Your task to perform on an android device: See recent photos Image 0: 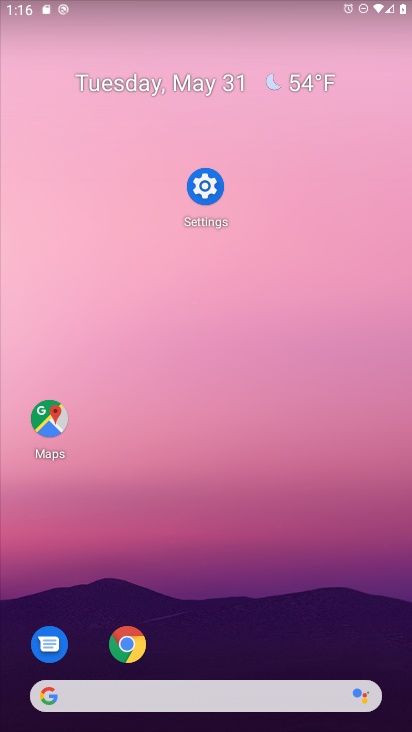
Step 0: drag from (211, 657) to (175, 274)
Your task to perform on an android device: See recent photos Image 1: 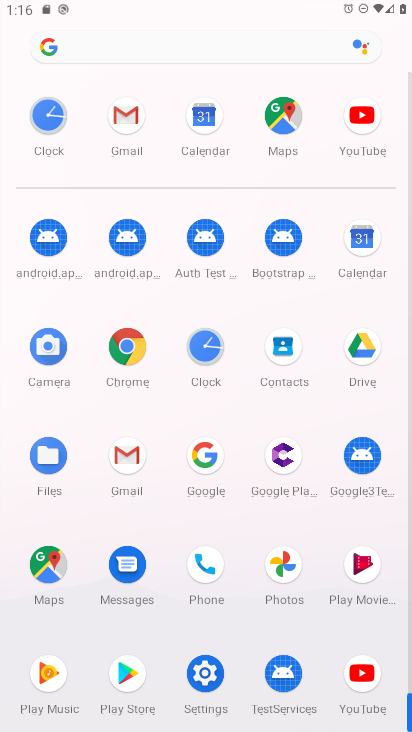
Step 1: click (284, 565)
Your task to perform on an android device: See recent photos Image 2: 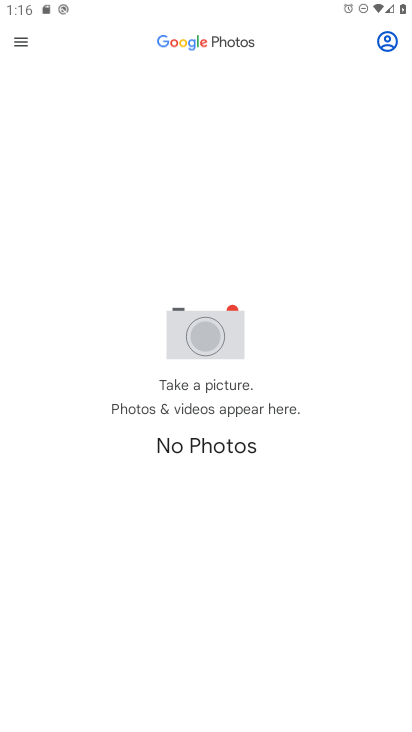
Step 2: click (26, 45)
Your task to perform on an android device: See recent photos Image 3: 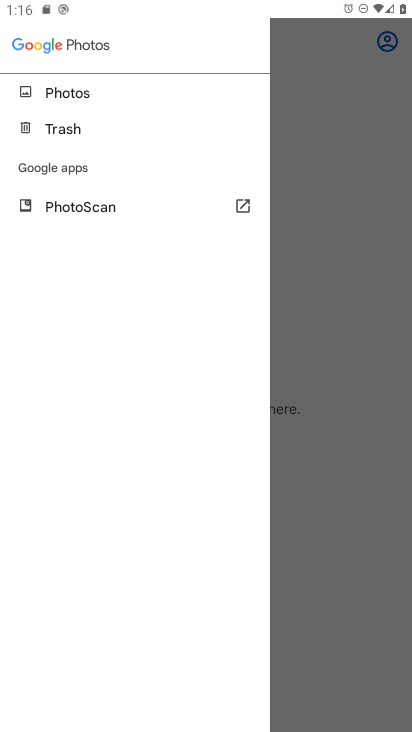
Step 3: click (70, 96)
Your task to perform on an android device: See recent photos Image 4: 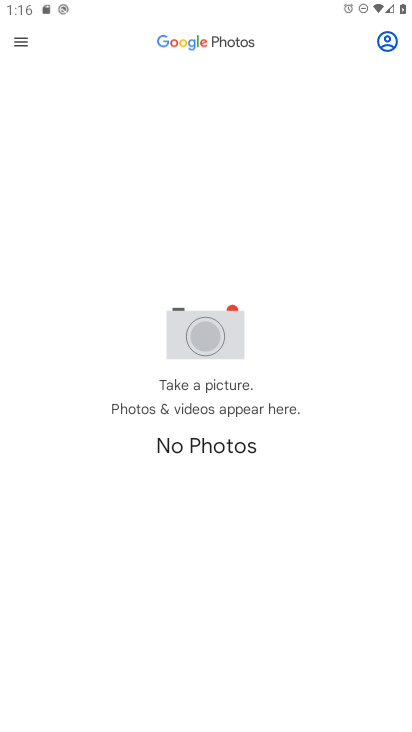
Step 4: task complete